Your task to perform on an android device: set an alarm Image 0: 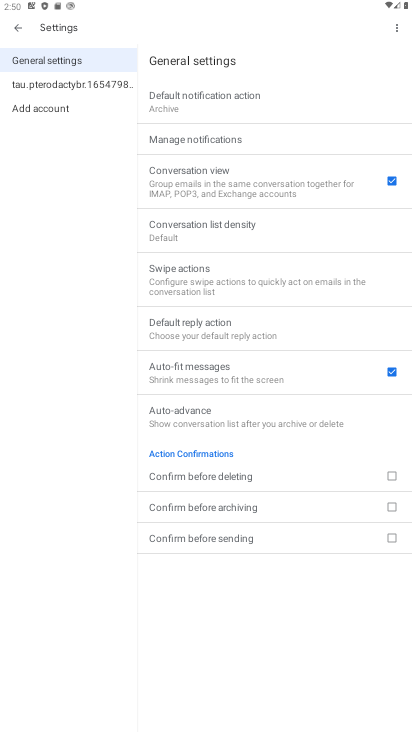
Step 0: press home button
Your task to perform on an android device: set an alarm Image 1: 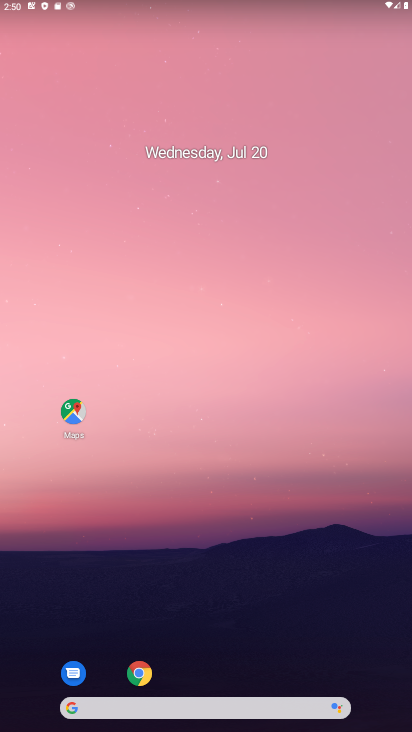
Step 1: drag from (282, 475) to (259, 0)
Your task to perform on an android device: set an alarm Image 2: 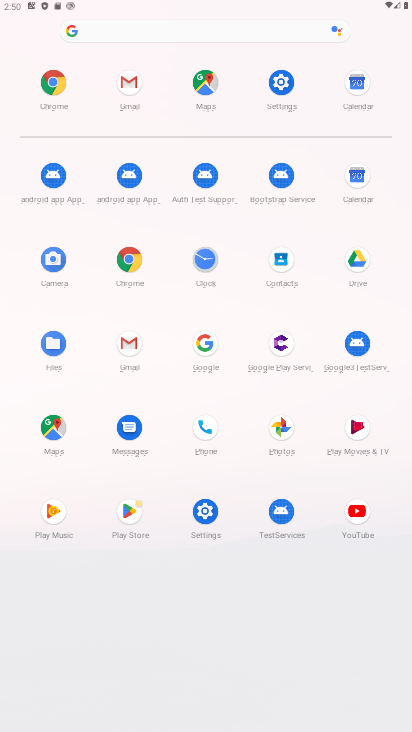
Step 2: click (201, 259)
Your task to perform on an android device: set an alarm Image 3: 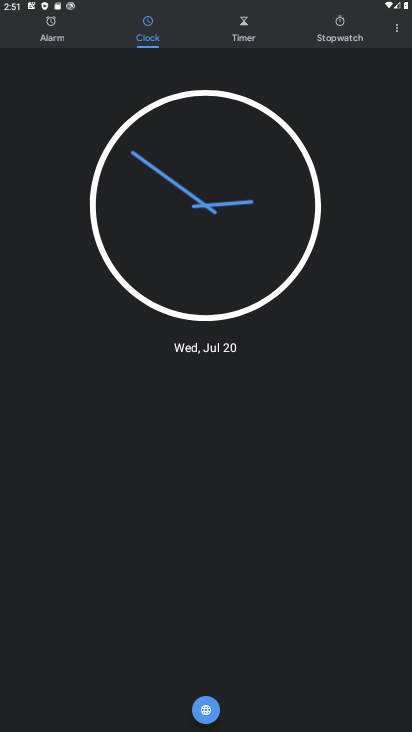
Step 3: click (61, 32)
Your task to perform on an android device: set an alarm Image 4: 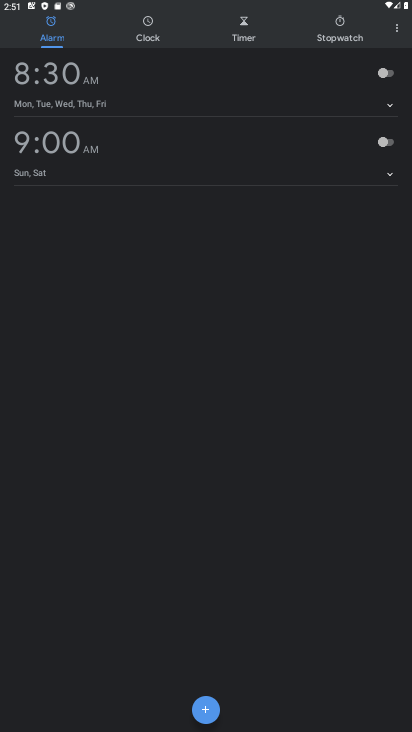
Step 4: click (391, 148)
Your task to perform on an android device: set an alarm Image 5: 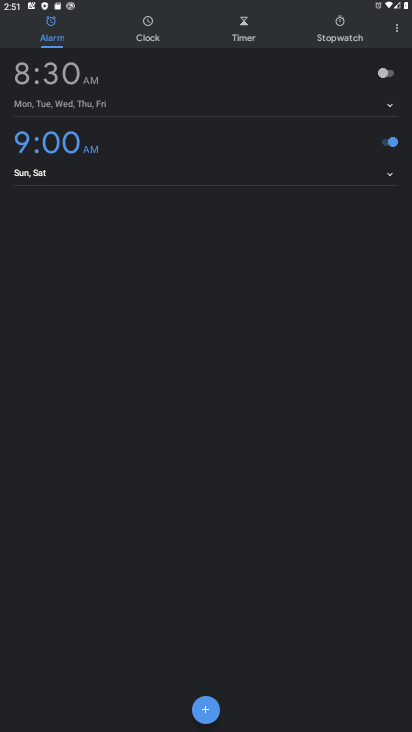
Step 5: task complete